Your task to perform on an android device: Open display settings Image 0: 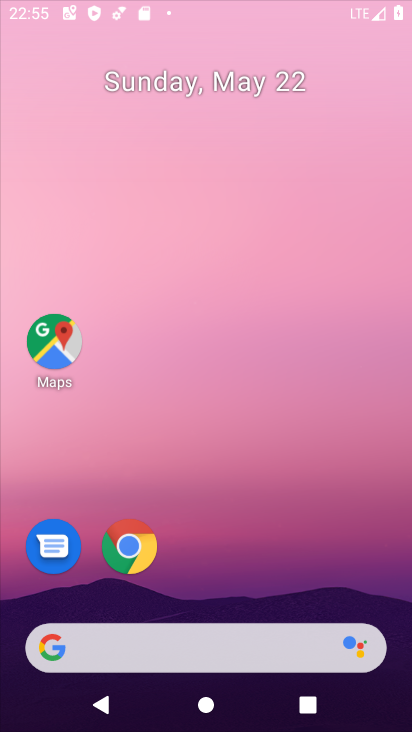
Step 0: drag from (360, 26) to (314, 6)
Your task to perform on an android device: Open display settings Image 1: 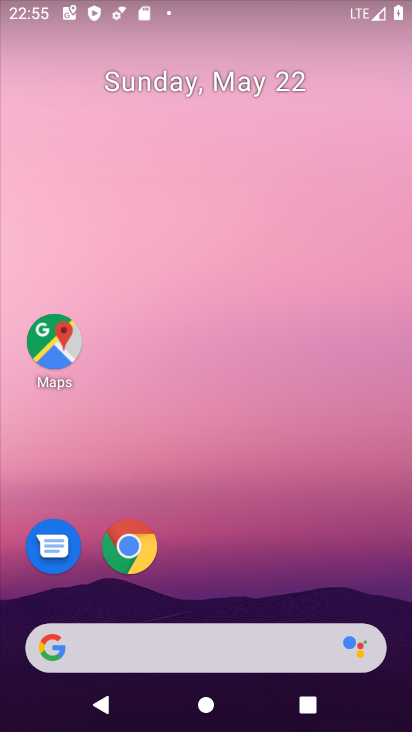
Step 1: drag from (206, 619) to (234, 99)
Your task to perform on an android device: Open display settings Image 2: 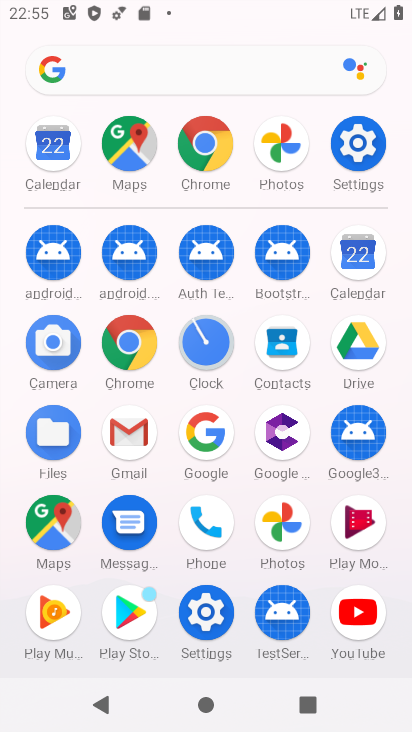
Step 2: click (359, 162)
Your task to perform on an android device: Open display settings Image 3: 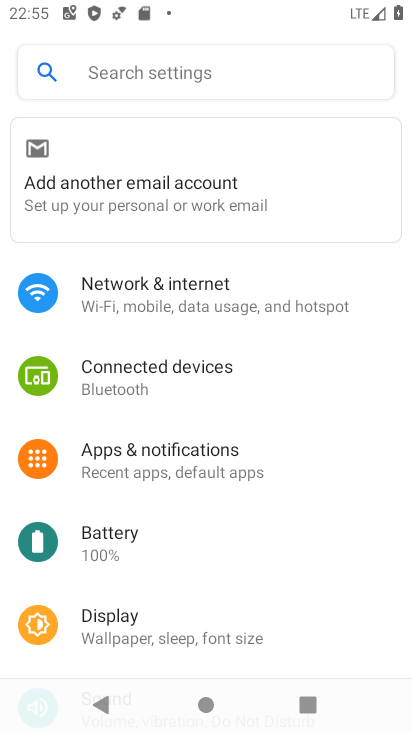
Step 3: drag from (146, 582) to (270, 77)
Your task to perform on an android device: Open display settings Image 4: 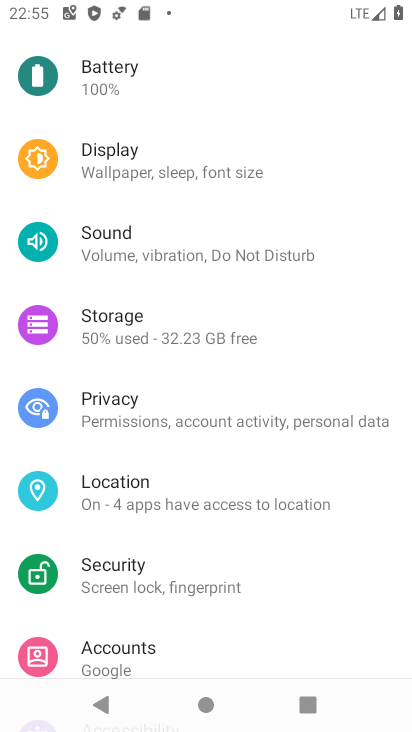
Step 4: click (168, 154)
Your task to perform on an android device: Open display settings Image 5: 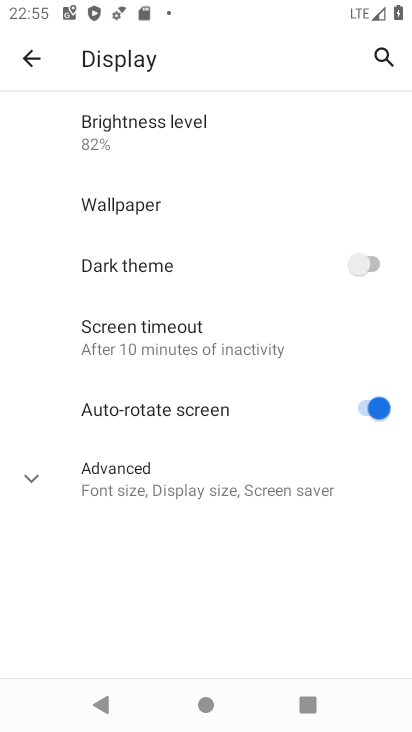
Step 5: task complete